Your task to perform on an android device: open app "Venmo" (install if not already installed) Image 0: 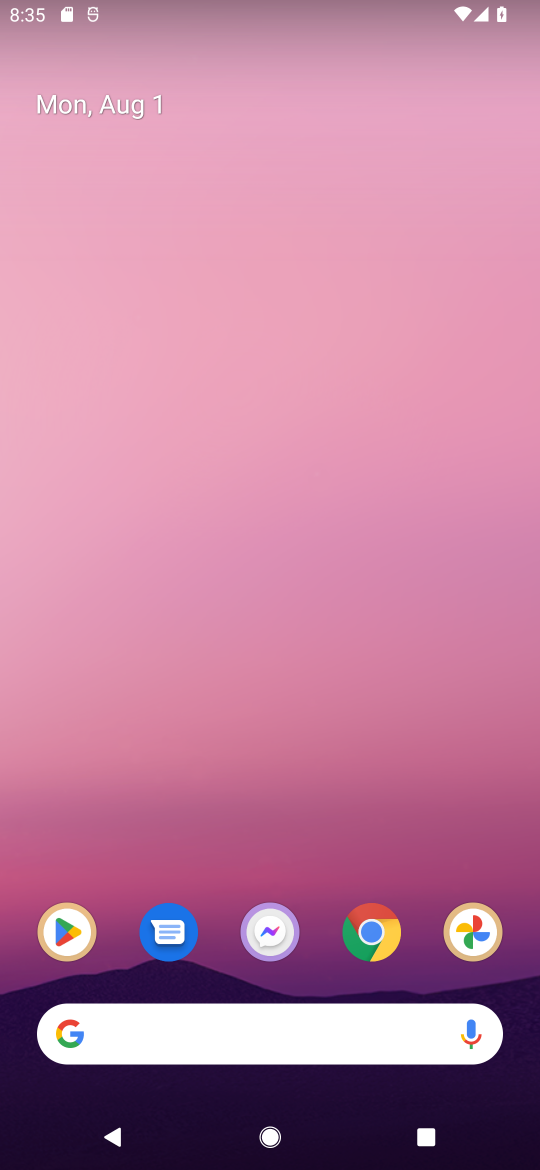
Step 0: click (63, 933)
Your task to perform on an android device: open app "Venmo" (install if not already installed) Image 1: 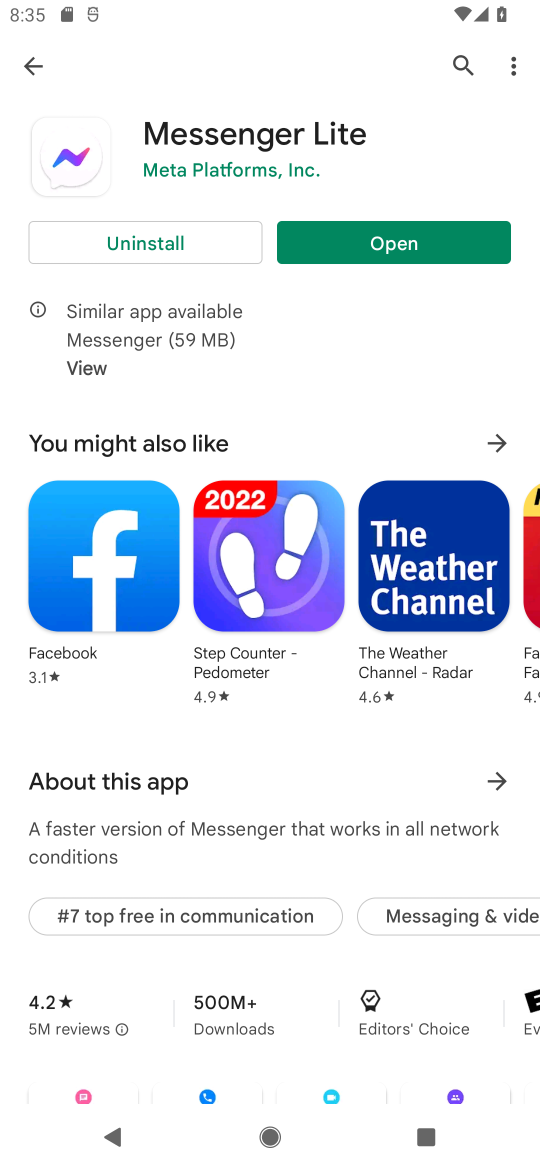
Step 1: click (465, 66)
Your task to perform on an android device: open app "Venmo" (install if not already installed) Image 2: 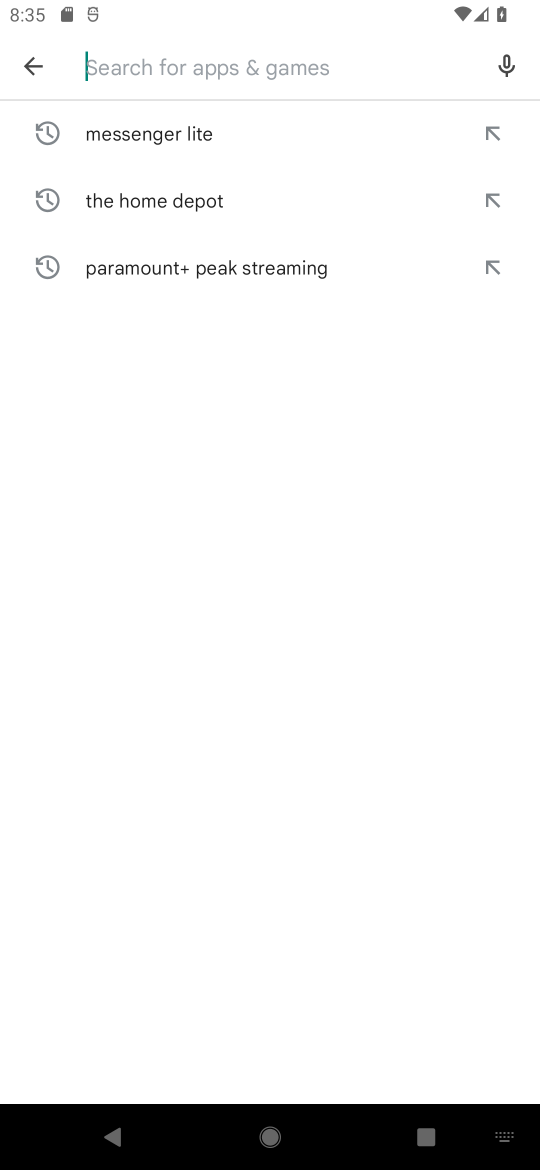
Step 2: type "venmo"
Your task to perform on an android device: open app "Venmo" (install if not already installed) Image 3: 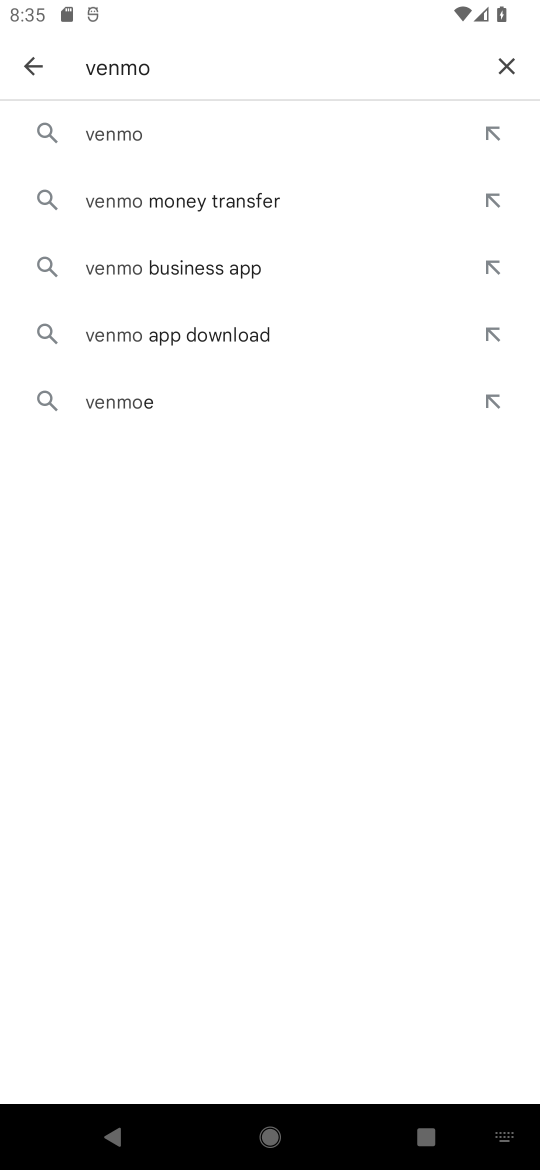
Step 3: click (227, 132)
Your task to perform on an android device: open app "Venmo" (install if not already installed) Image 4: 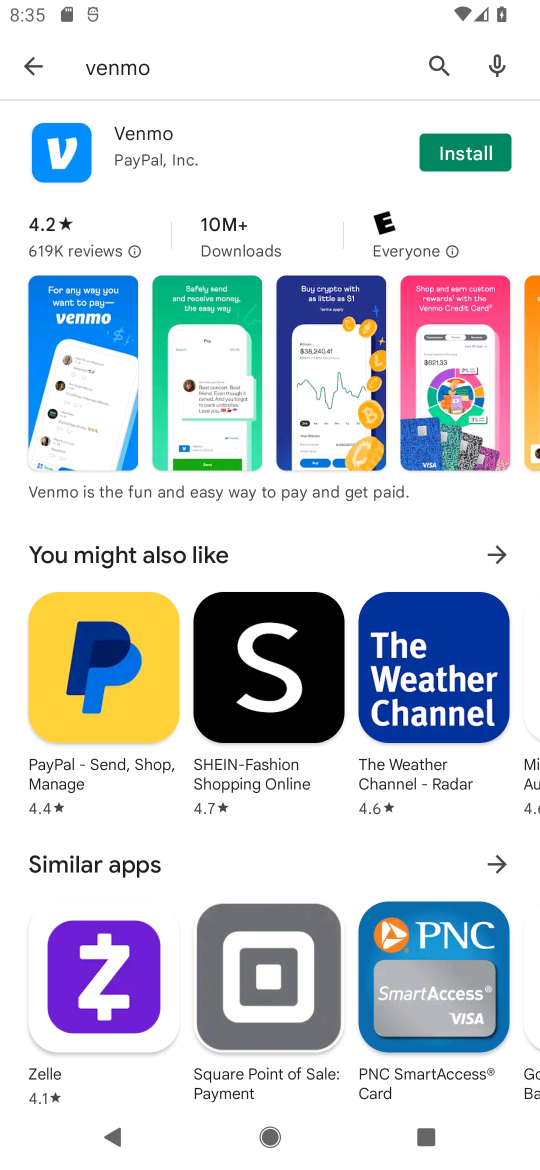
Step 4: click (204, 120)
Your task to perform on an android device: open app "Venmo" (install if not already installed) Image 5: 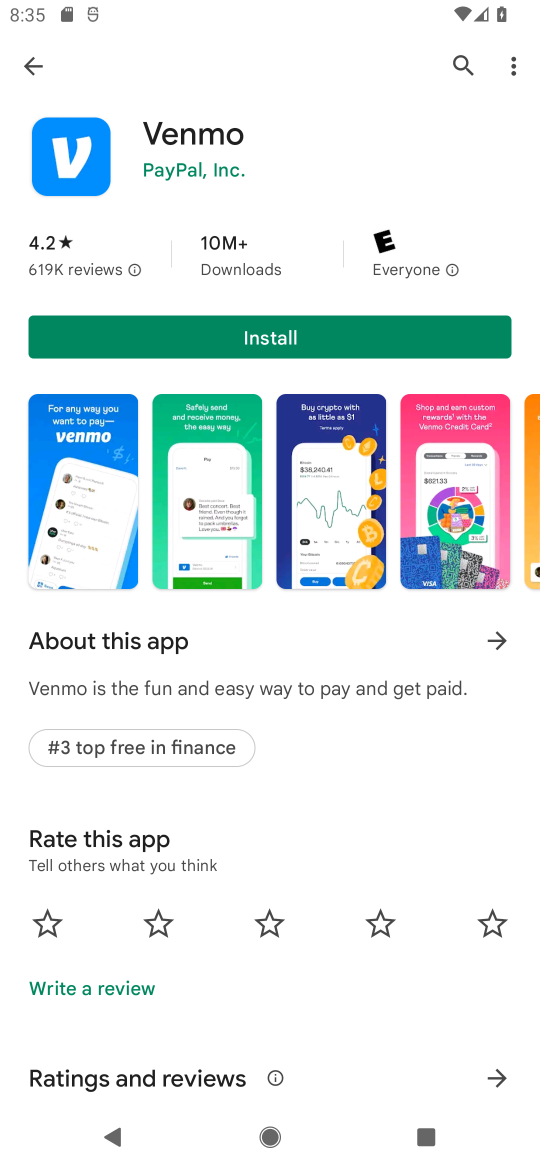
Step 5: click (323, 320)
Your task to perform on an android device: open app "Venmo" (install if not already installed) Image 6: 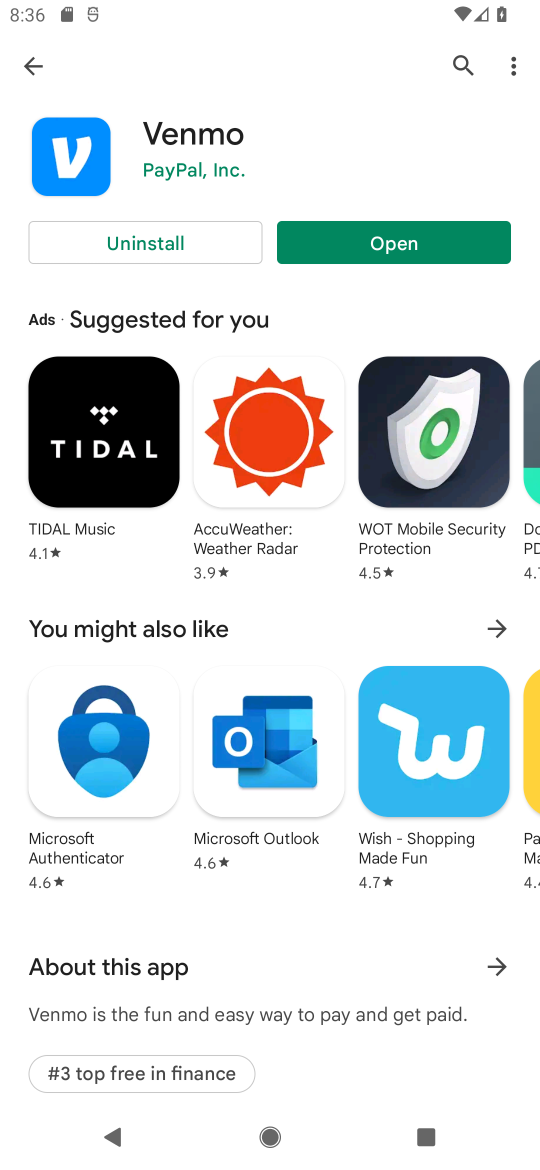
Step 6: click (421, 240)
Your task to perform on an android device: open app "Venmo" (install if not already installed) Image 7: 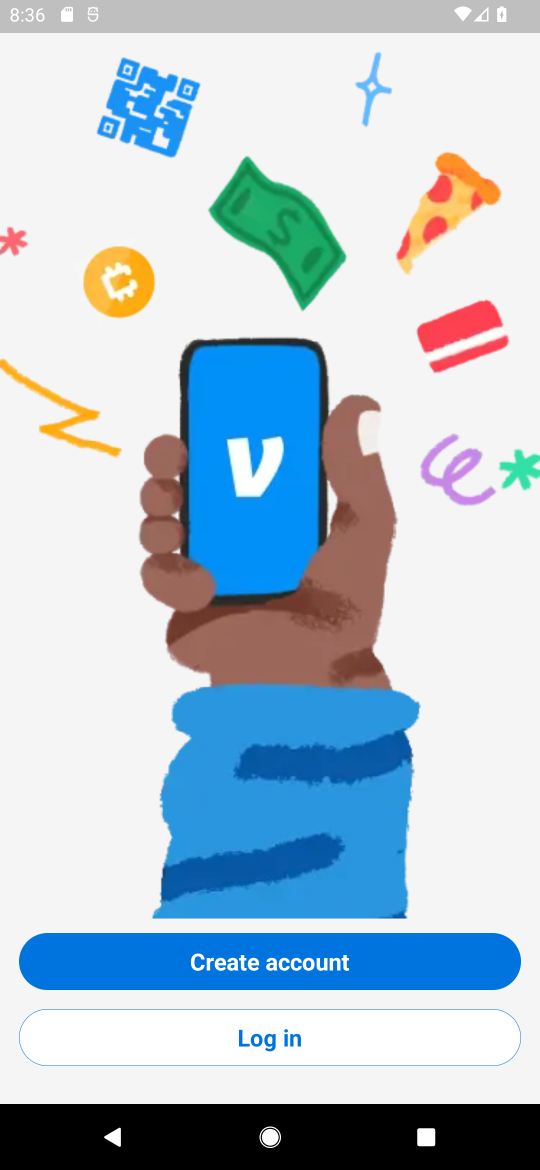
Step 7: task complete